Your task to perform on an android device: visit the assistant section in the google photos Image 0: 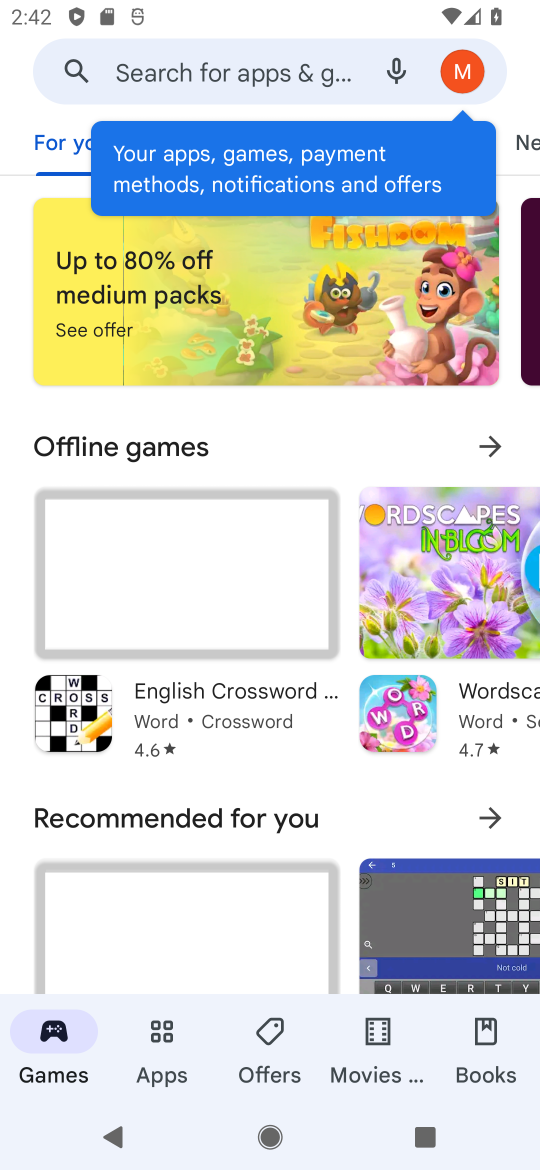
Step 0: press home button
Your task to perform on an android device: visit the assistant section in the google photos Image 1: 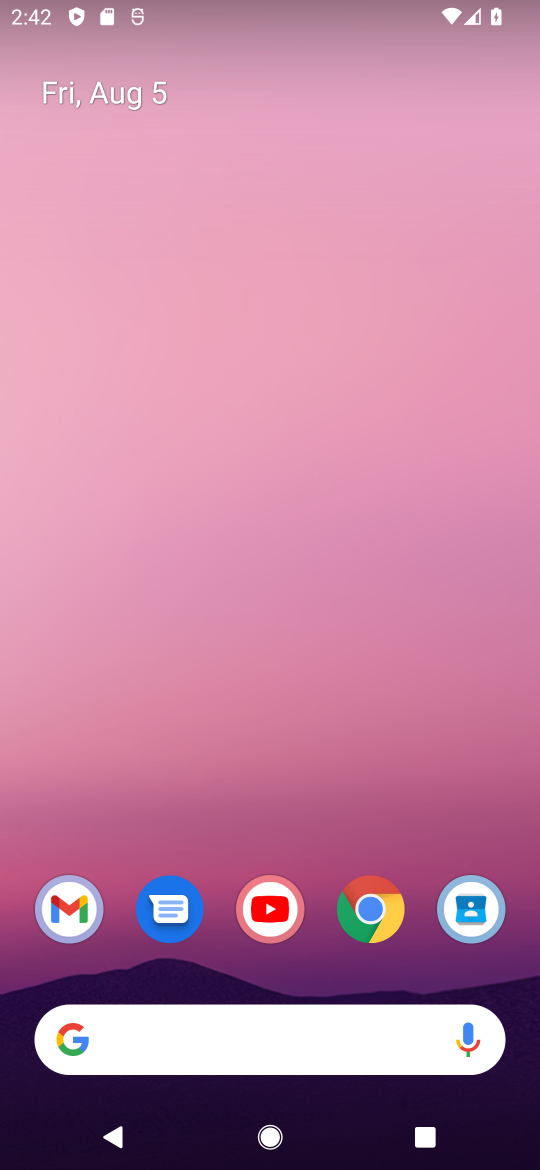
Step 1: drag from (315, 990) to (338, 194)
Your task to perform on an android device: visit the assistant section in the google photos Image 2: 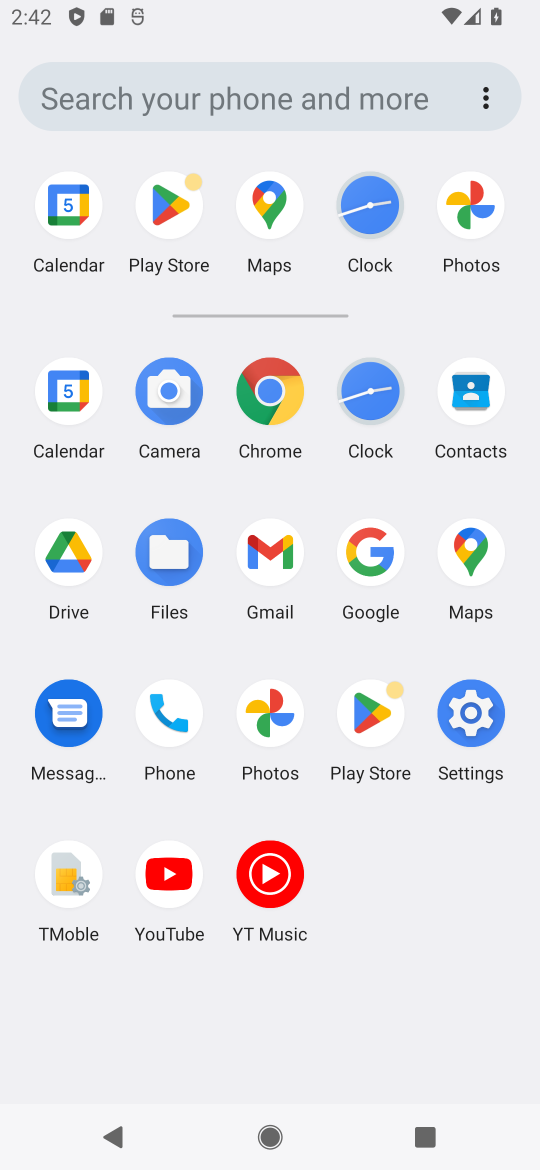
Step 2: click (454, 220)
Your task to perform on an android device: visit the assistant section in the google photos Image 3: 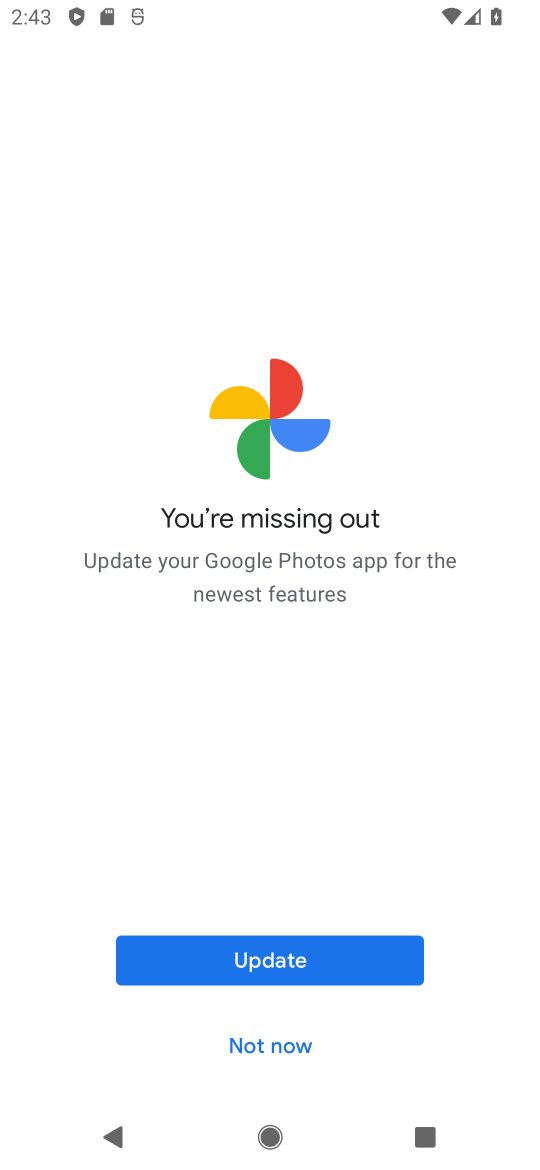
Step 3: click (312, 1046)
Your task to perform on an android device: visit the assistant section in the google photos Image 4: 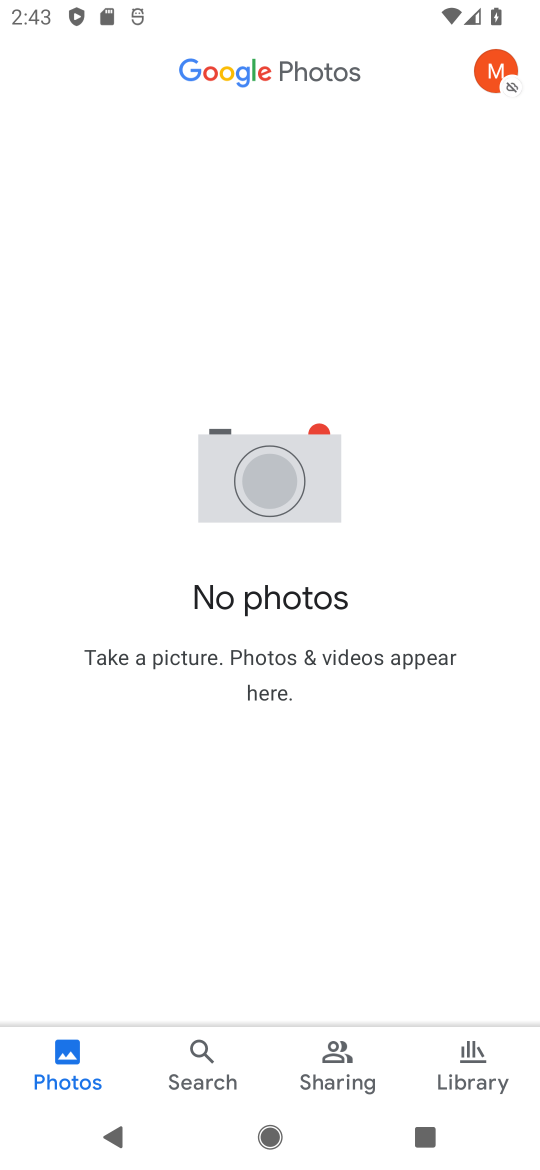
Step 4: click (477, 77)
Your task to perform on an android device: visit the assistant section in the google photos Image 5: 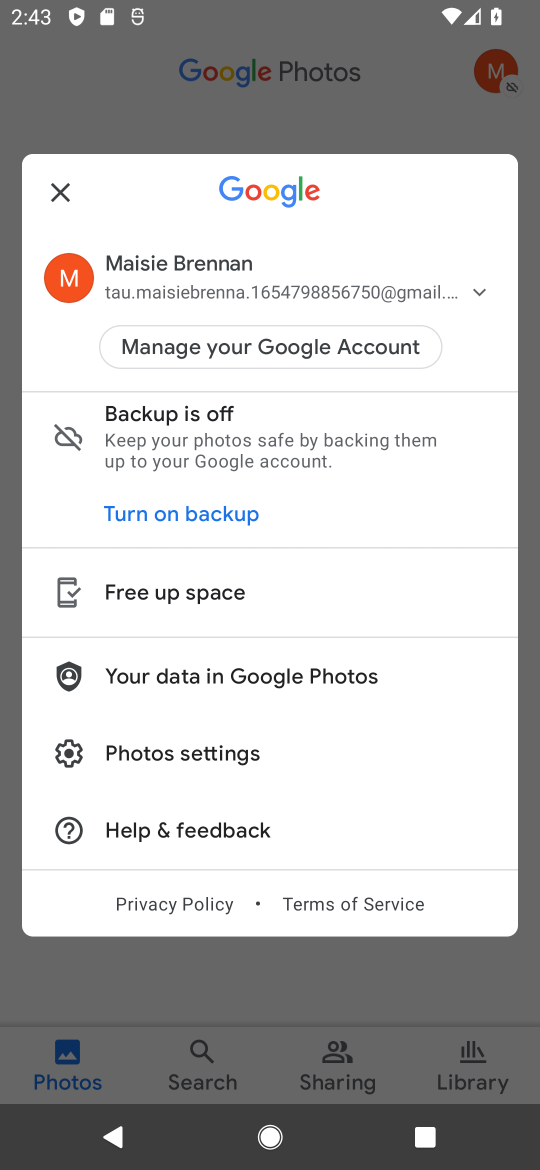
Step 5: task complete